Your task to perform on an android device: create a new album in the google photos Image 0: 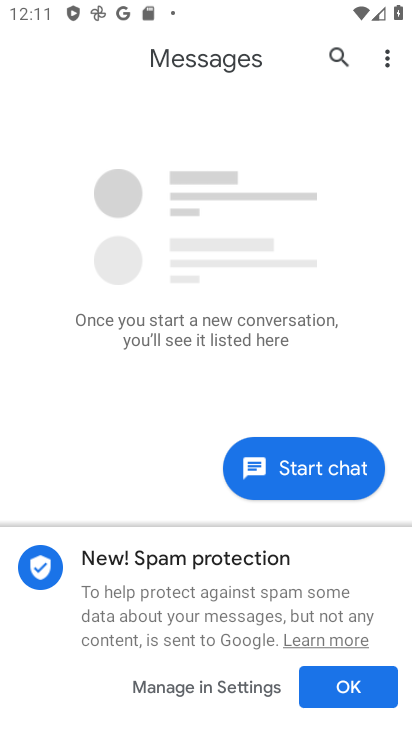
Step 0: press back button
Your task to perform on an android device: create a new album in the google photos Image 1: 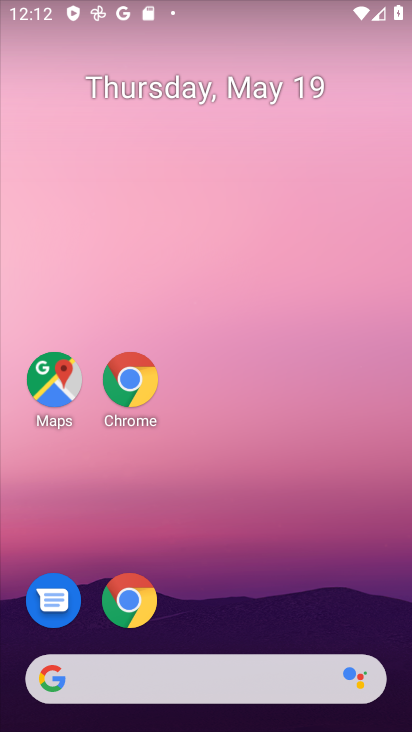
Step 1: drag from (328, 573) to (160, 83)
Your task to perform on an android device: create a new album in the google photos Image 2: 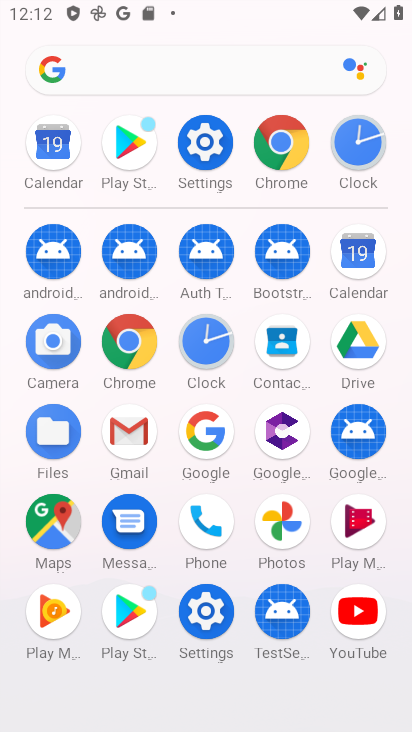
Step 2: click (287, 525)
Your task to perform on an android device: create a new album in the google photos Image 3: 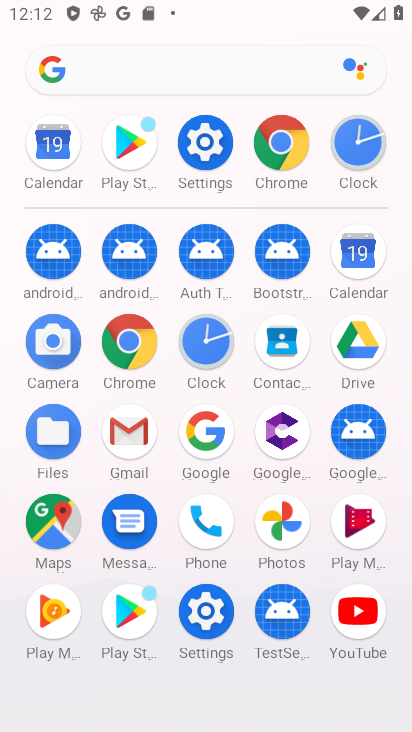
Step 3: click (287, 525)
Your task to perform on an android device: create a new album in the google photos Image 4: 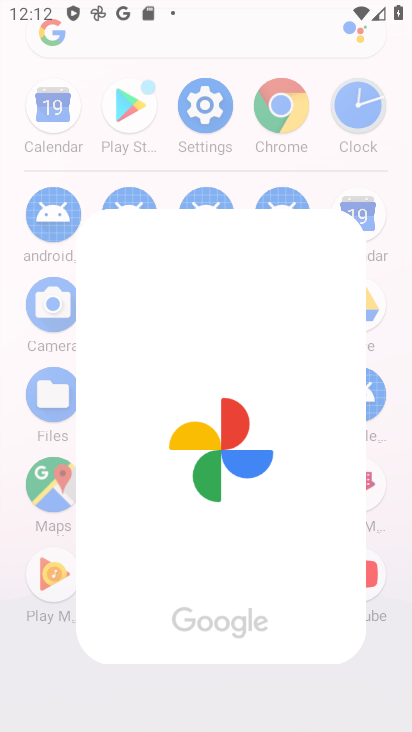
Step 4: click (278, 510)
Your task to perform on an android device: create a new album in the google photos Image 5: 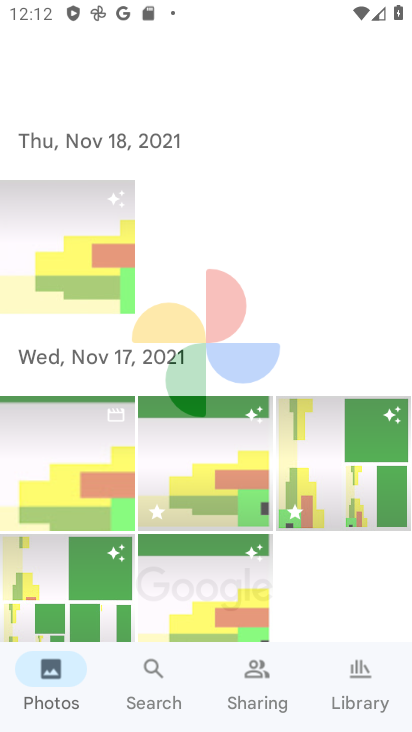
Step 5: click (281, 509)
Your task to perform on an android device: create a new album in the google photos Image 6: 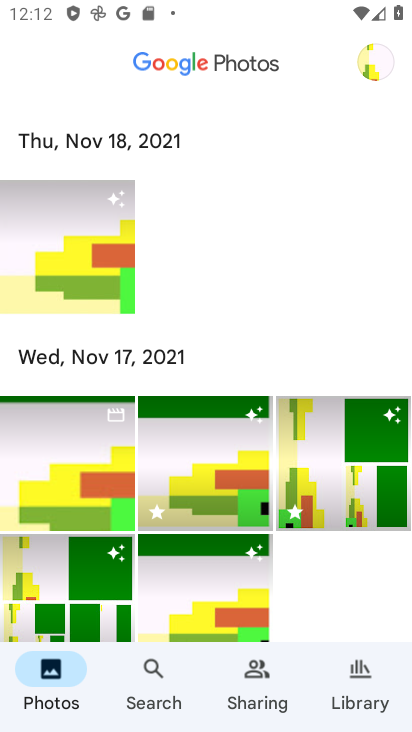
Step 6: click (281, 509)
Your task to perform on an android device: create a new album in the google photos Image 7: 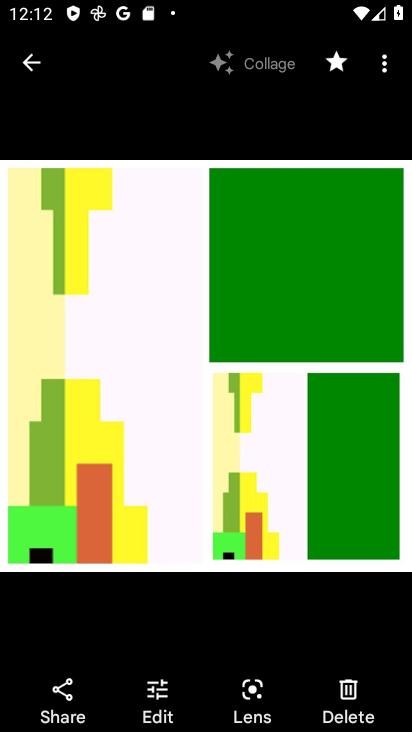
Step 7: click (23, 68)
Your task to perform on an android device: create a new album in the google photos Image 8: 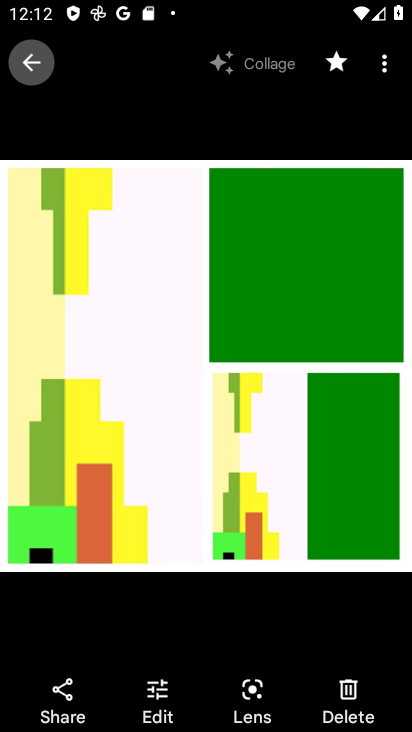
Step 8: click (25, 79)
Your task to perform on an android device: create a new album in the google photos Image 9: 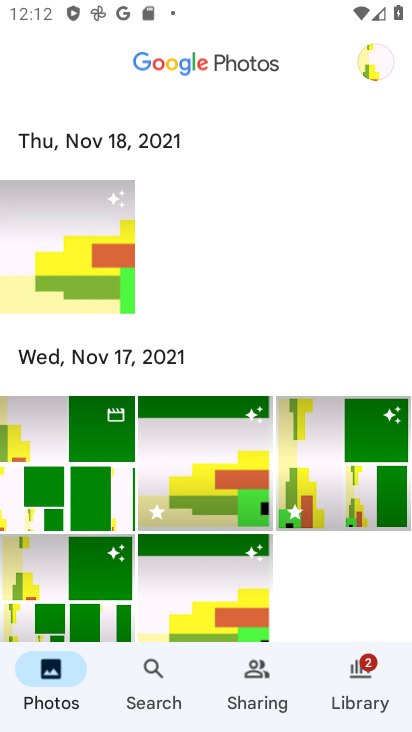
Step 9: task complete